Your task to perform on an android device: When is my next appointment? Image 0: 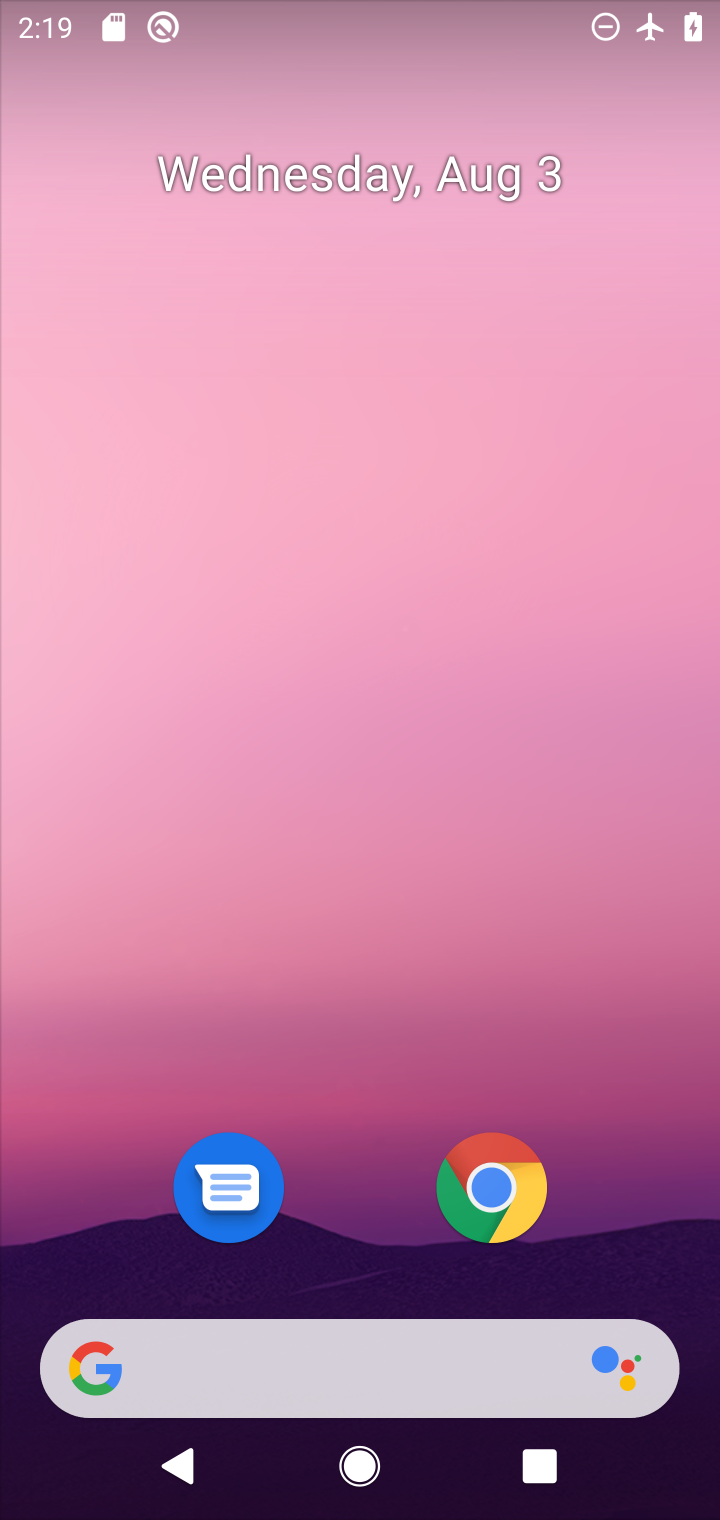
Step 0: drag from (364, 1094) to (343, 33)
Your task to perform on an android device: When is my next appointment? Image 1: 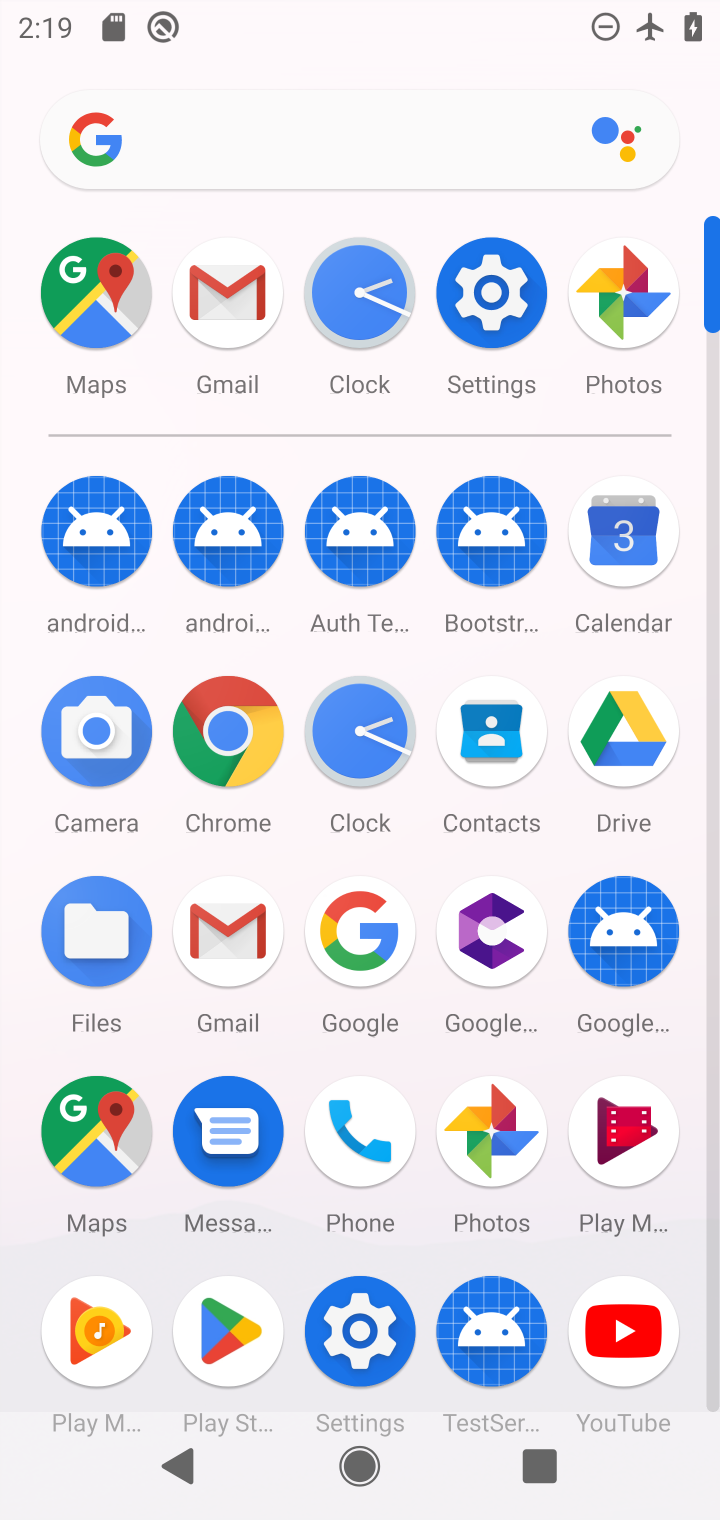
Step 1: click (618, 527)
Your task to perform on an android device: When is my next appointment? Image 2: 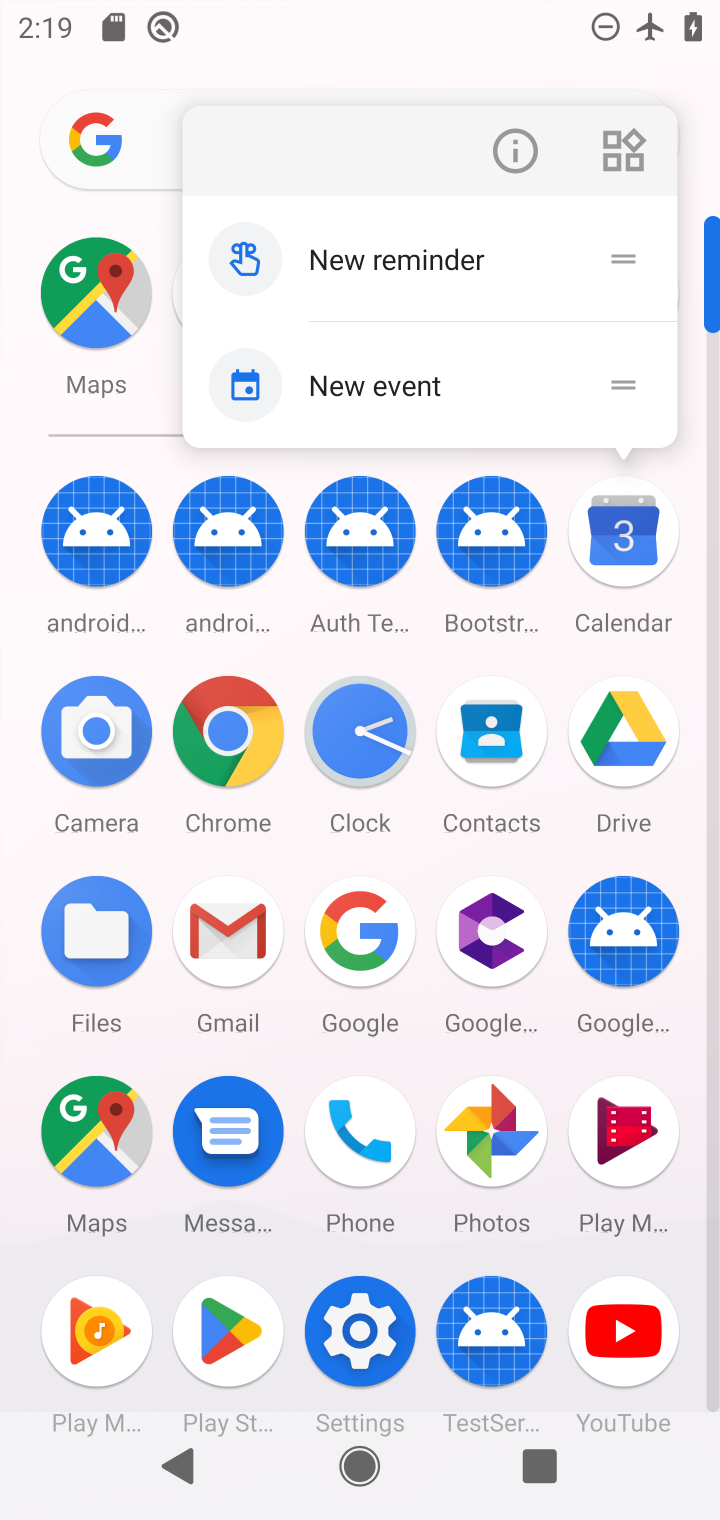
Step 2: click (618, 530)
Your task to perform on an android device: When is my next appointment? Image 3: 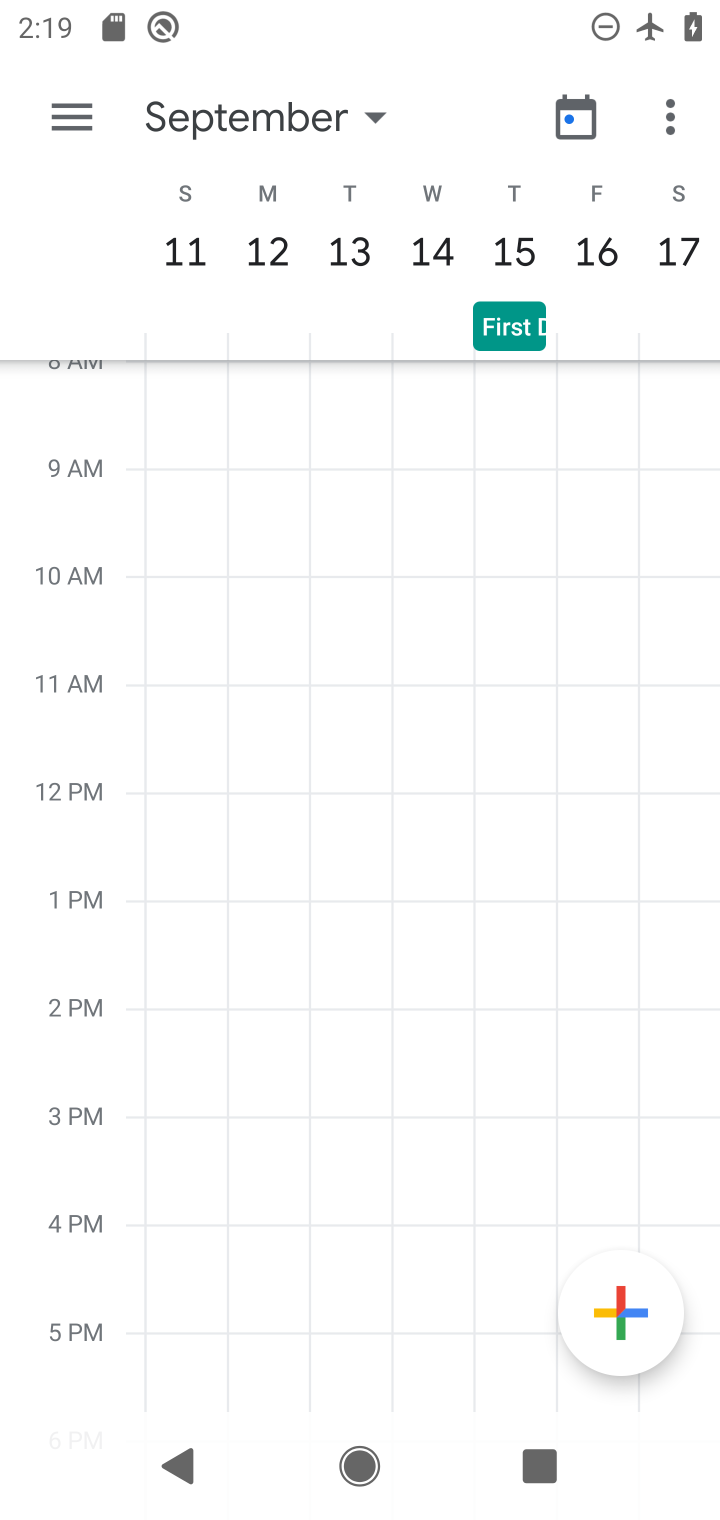
Step 3: drag from (183, 630) to (711, 553)
Your task to perform on an android device: When is my next appointment? Image 4: 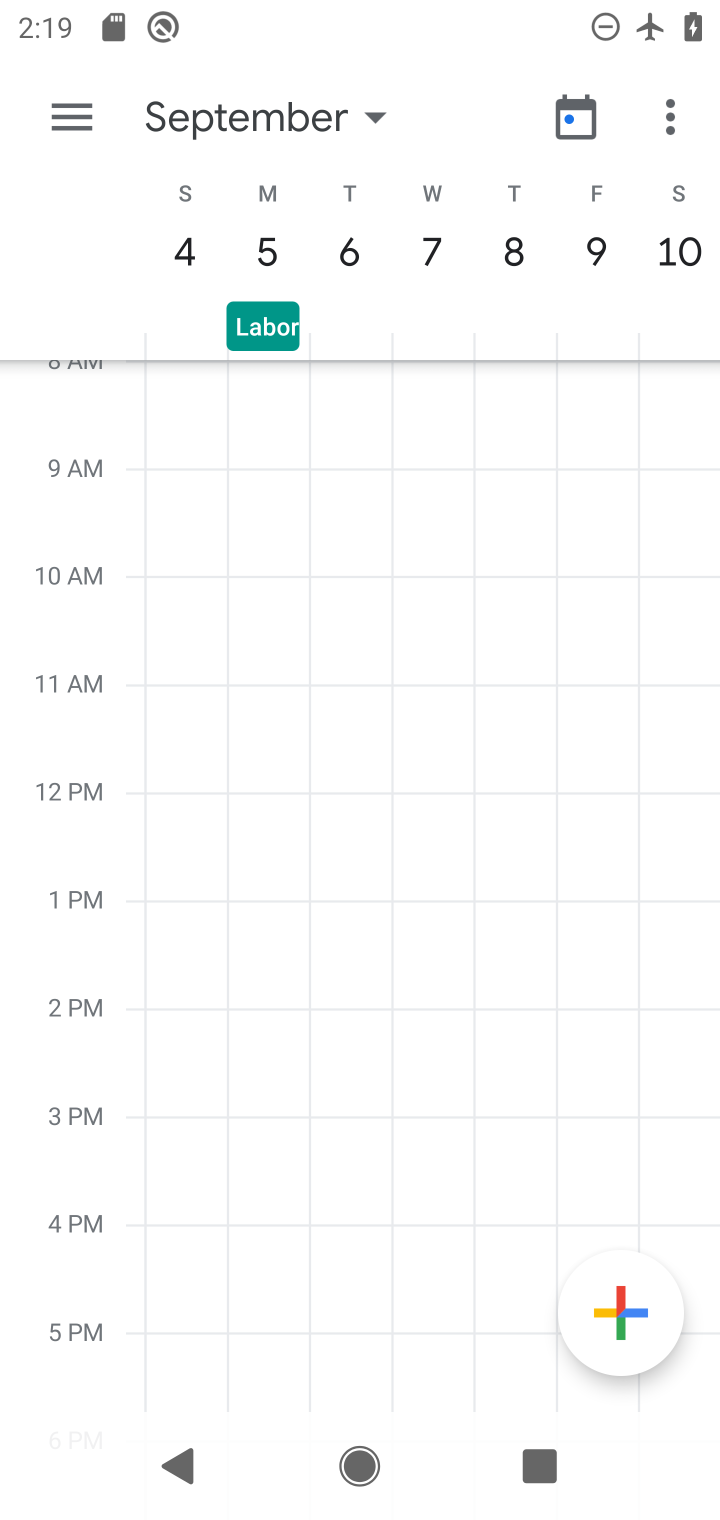
Step 4: drag from (183, 620) to (712, 684)
Your task to perform on an android device: When is my next appointment? Image 5: 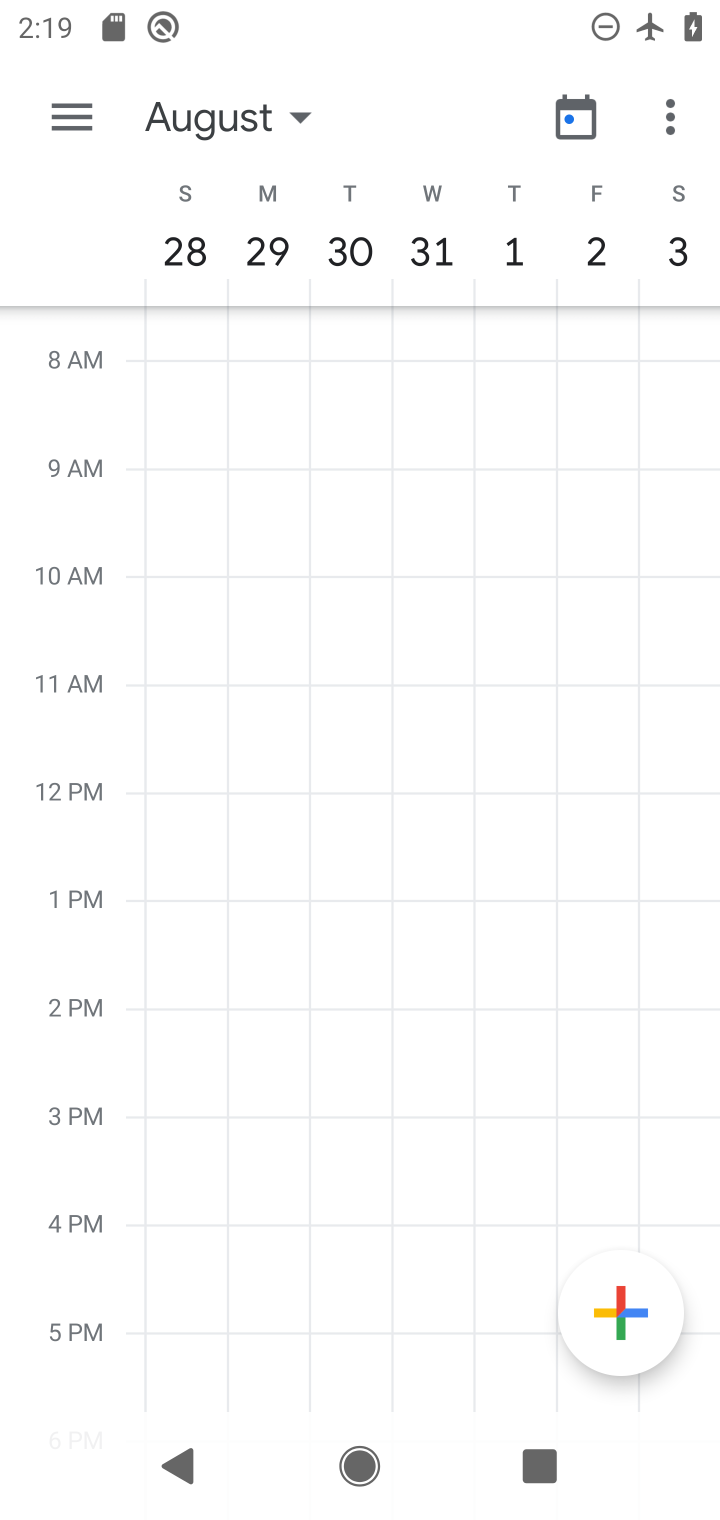
Step 5: drag from (216, 645) to (714, 653)
Your task to perform on an android device: When is my next appointment? Image 6: 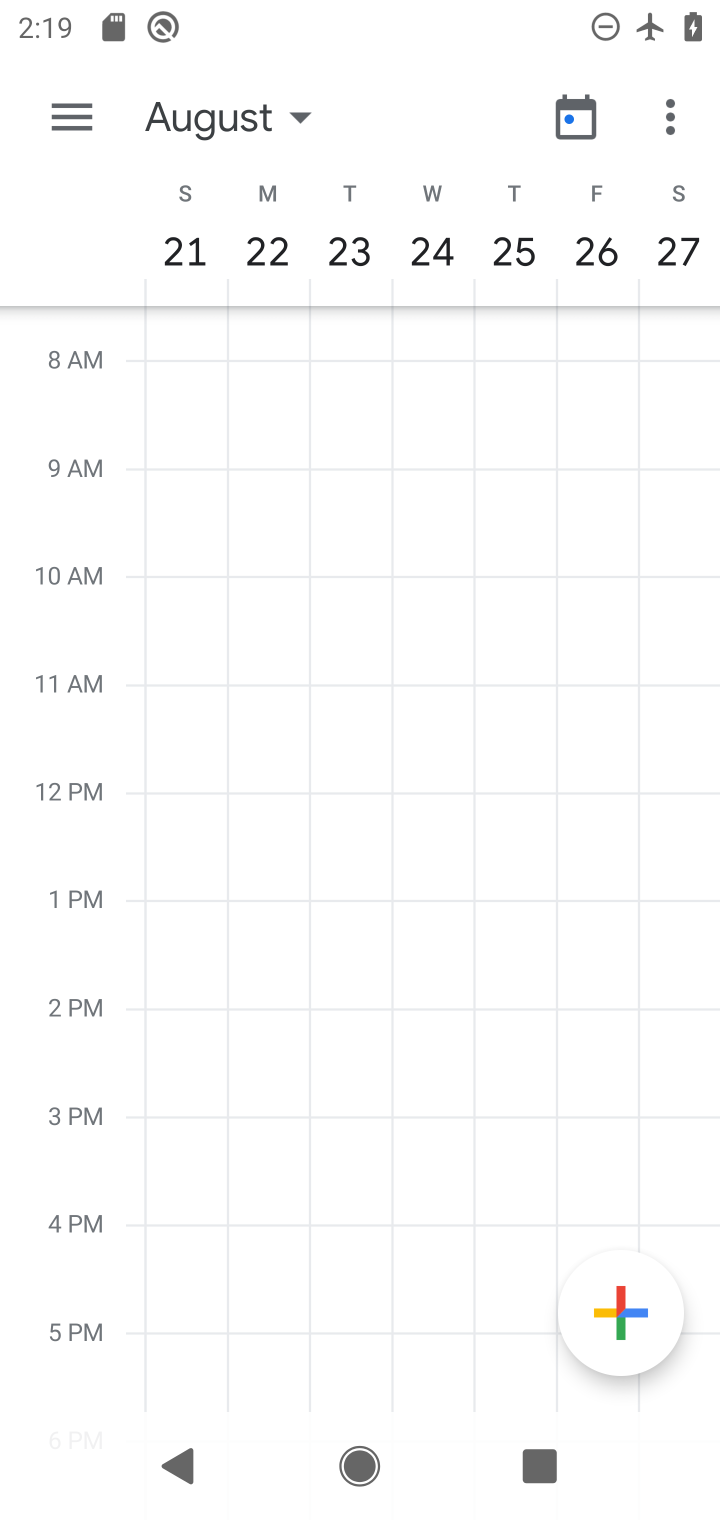
Step 6: drag from (181, 636) to (709, 584)
Your task to perform on an android device: When is my next appointment? Image 7: 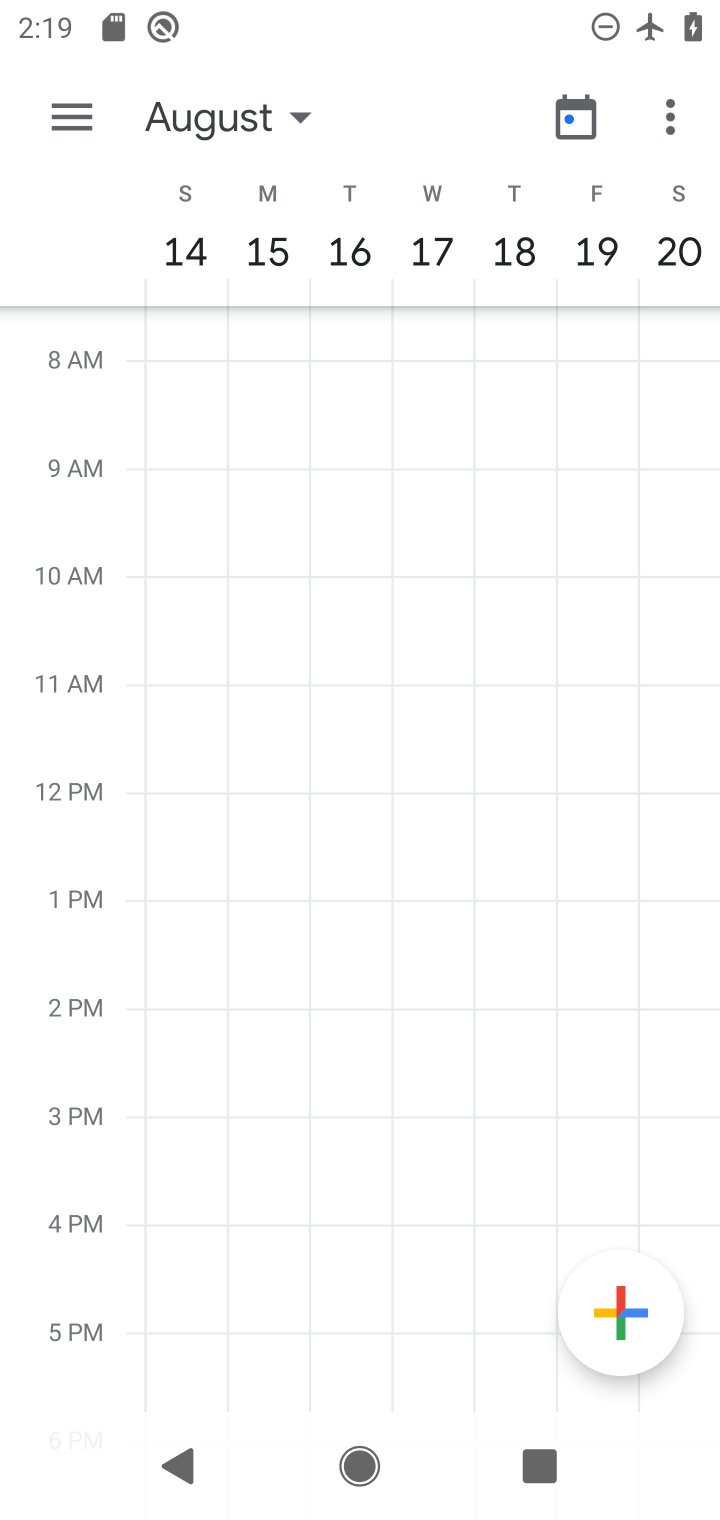
Step 7: drag from (177, 619) to (712, 669)
Your task to perform on an android device: When is my next appointment? Image 8: 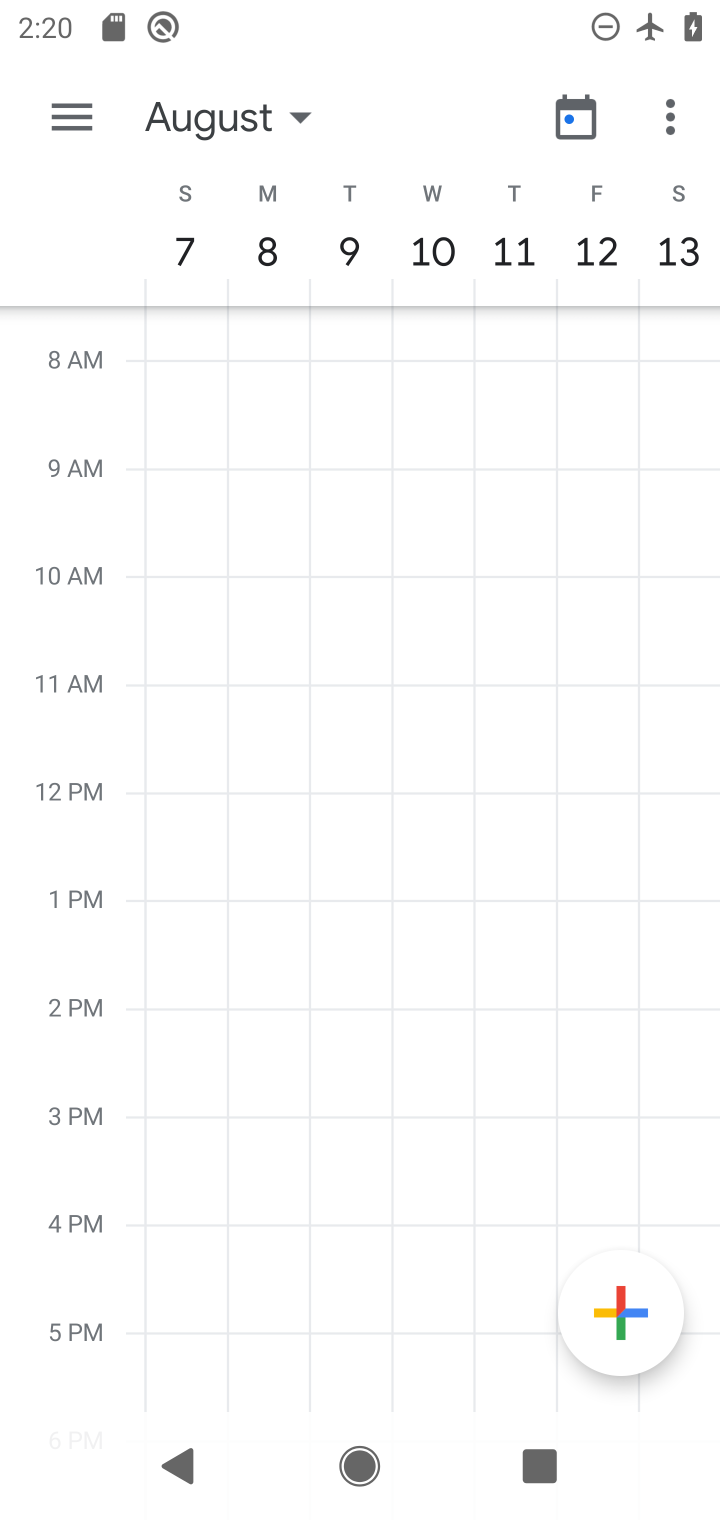
Step 8: drag from (177, 632) to (676, 701)
Your task to perform on an android device: When is my next appointment? Image 9: 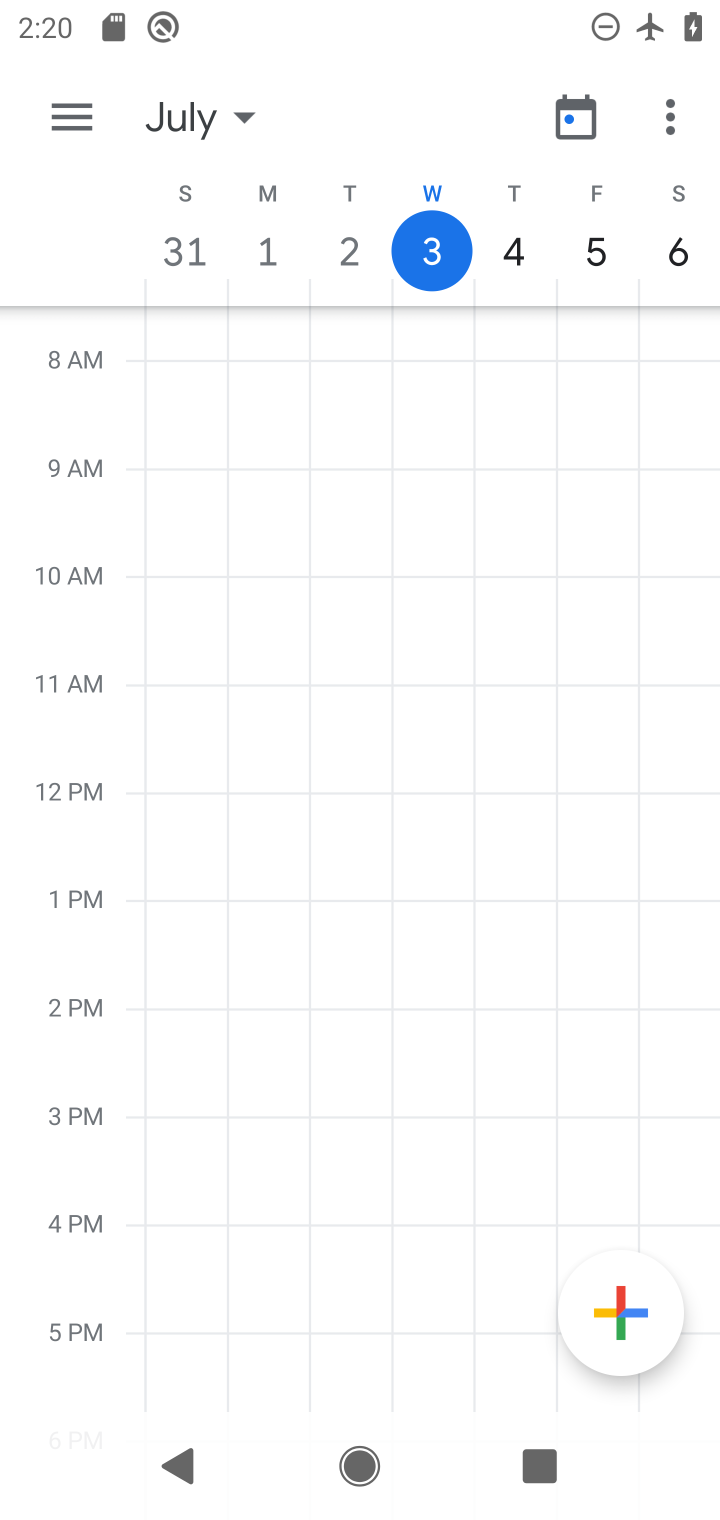
Step 9: click (442, 267)
Your task to perform on an android device: When is my next appointment? Image 10: 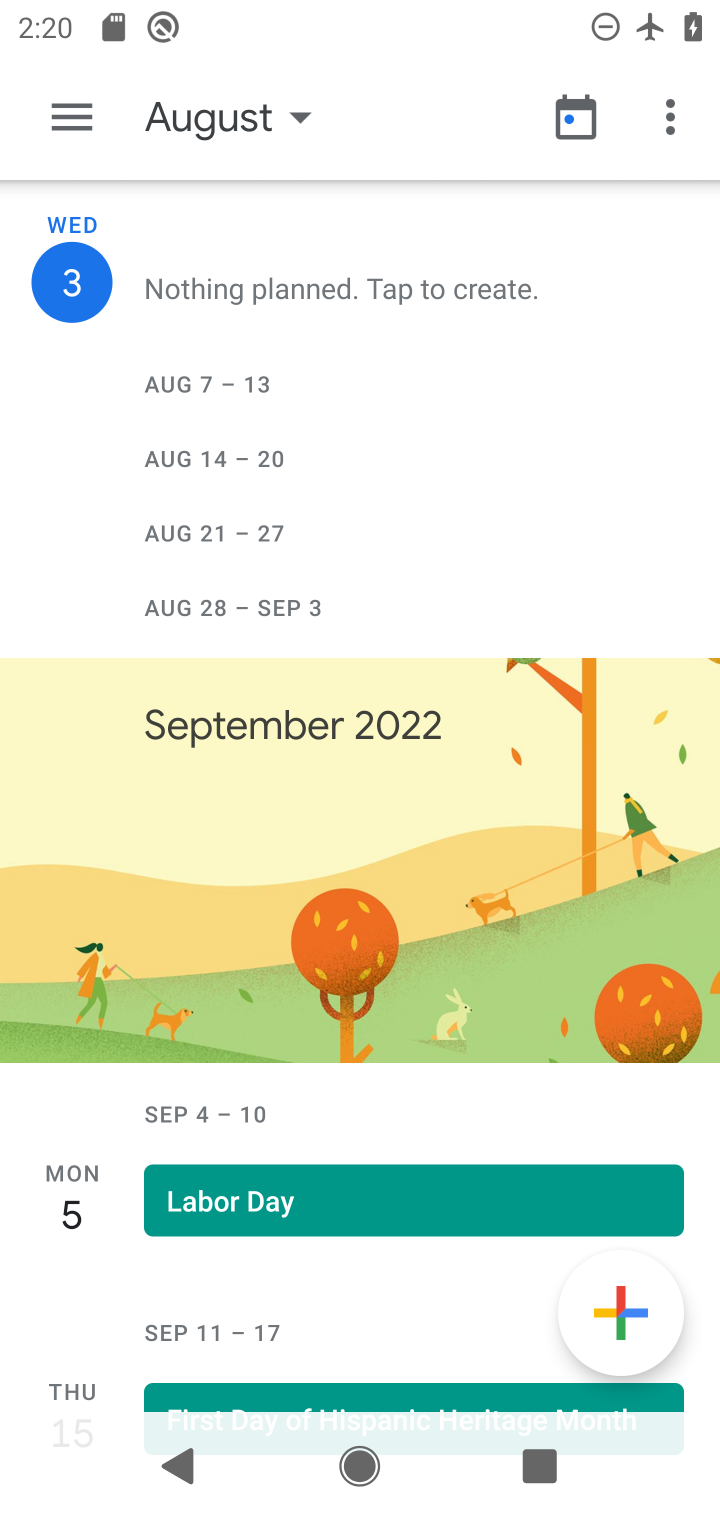
Step 10: task complete